Your task to perform on an android device: Play the last video I watched on Youtube Image 0: 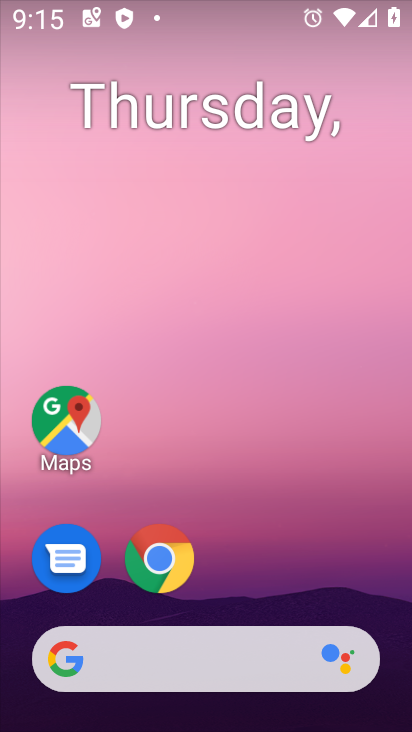
Step 0: drag from (377, 571) to (390, 174)
Your task to perform on an android device: Play the last video I watched on Youtube Image 1: 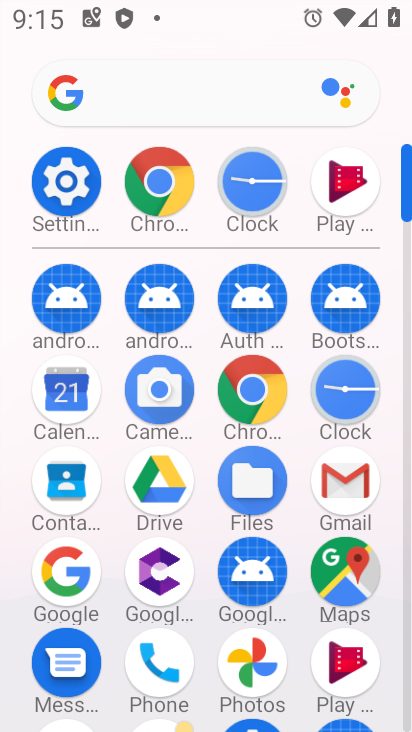
Step 1: drag from (402, 484) to (402, 427)
Your task to perform on an android device: Play the last video I watched on Youtube Image 2: 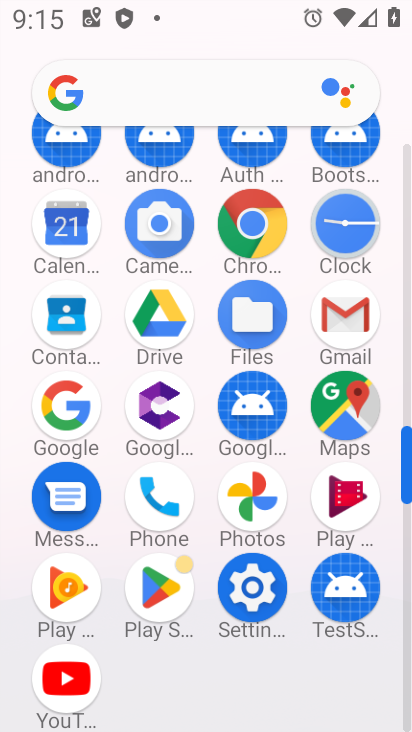
Step 2: click (84, 676)
Your task to perform on an android device: Play the last video I watched on Youtube Image 3: 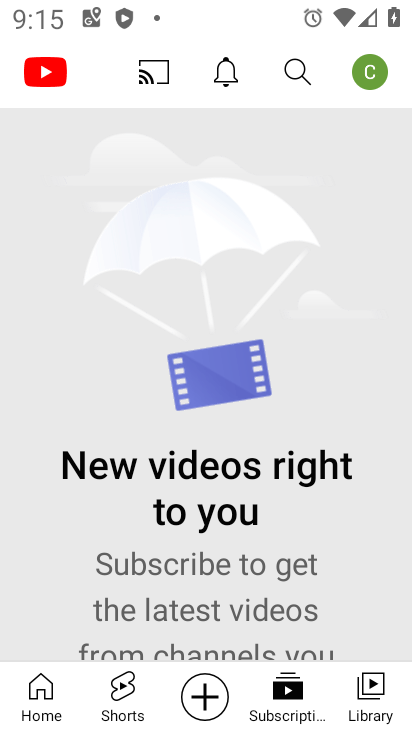
Step 3: click (379, 677)
Your task to perform on an android device: Play the last video I watched on Youtube Image 4: 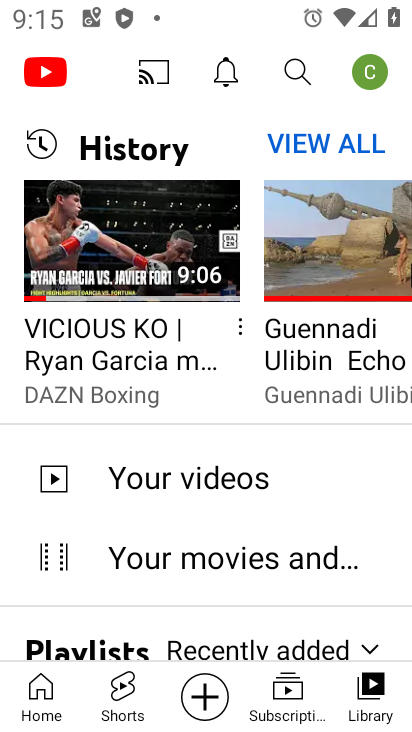
Step 4: click (122, 208)
Your task to perform on an android device: Play the last video I watched on Youtube Image 5: 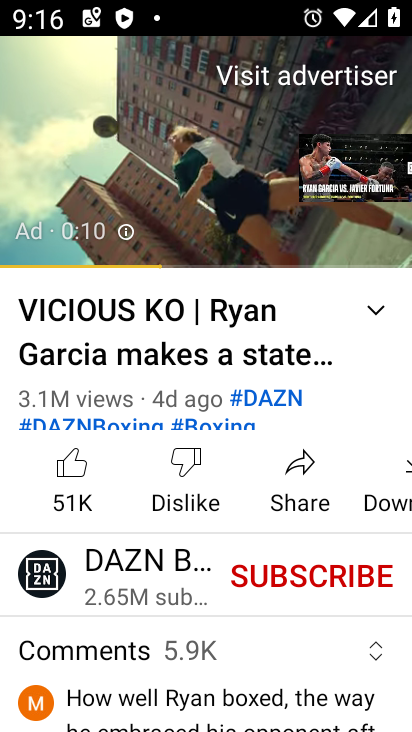
Step 5: task complete